Your task to perform on an android device: toggle data saver in the chrome app Image 0: 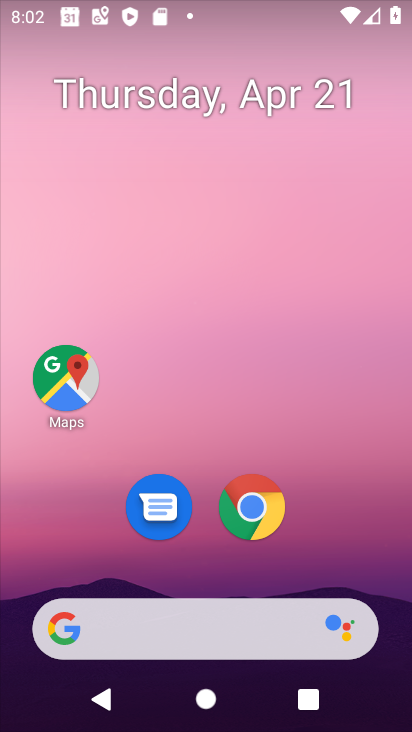
Step 0: click (272, 513)
Your task to perform on an android device: toggle data saver in the chrome app Image 1: 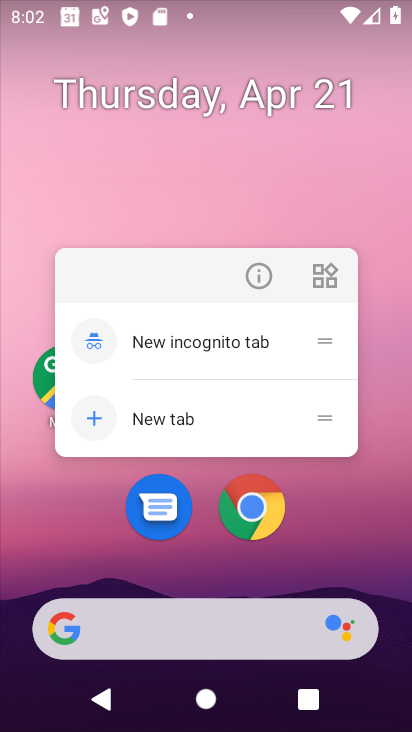
Step 1: click (269, 509)
Your task to perform on an android device: toggle data saver in the chrome app Image 2: 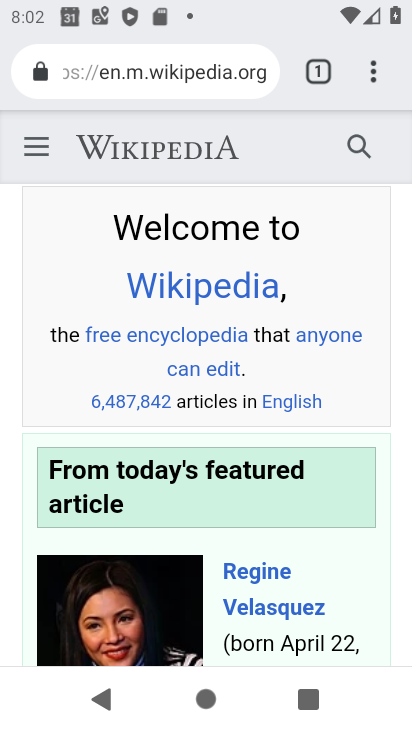
Step 2: drag from (375, 69) to (162, 490)
Your task to perform on an android device: toggle data saver in the chrome app Image 3: 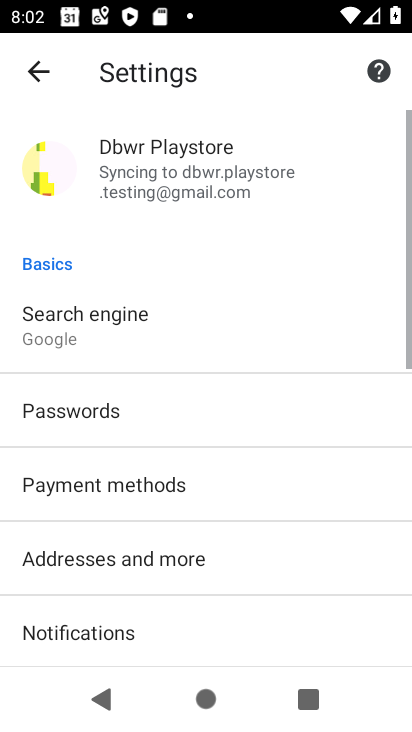
Step 3: drag from (126, 587) to (334, 47)
Your task to perform on an android device: toggle data saver in the chrome app Image 4: 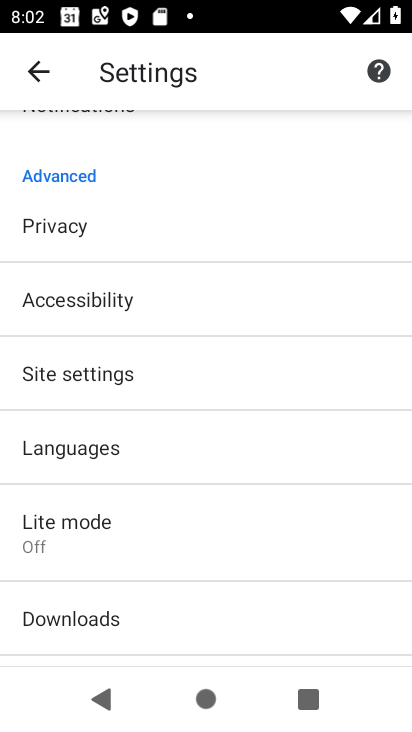
Step 4: click (85, 542)
Your task to perform on an android device: toggle data saver in the chrome app Image 5: 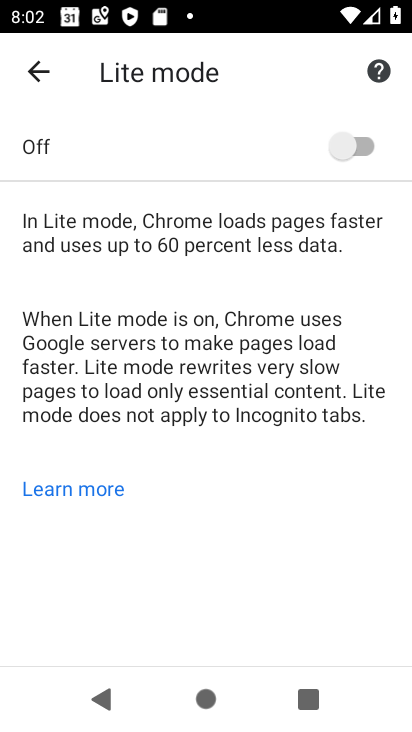
Step 5: click (345, 145)
Your task to perform on an android device: toggle data saver in the chrome app Image 6: 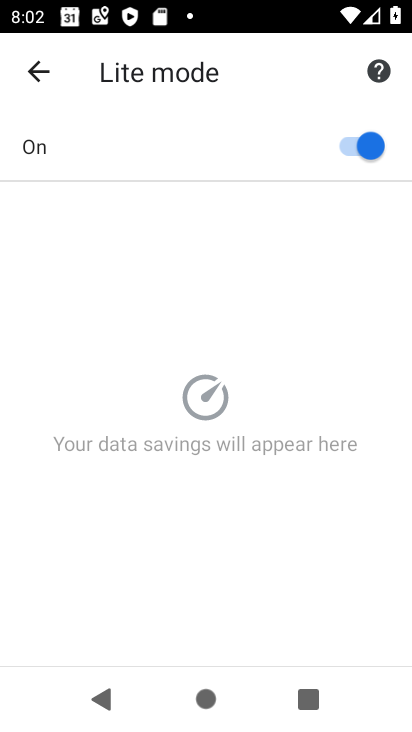
Step 6: task complete